Your task to perform on an android device: Go to Maps Image 0: 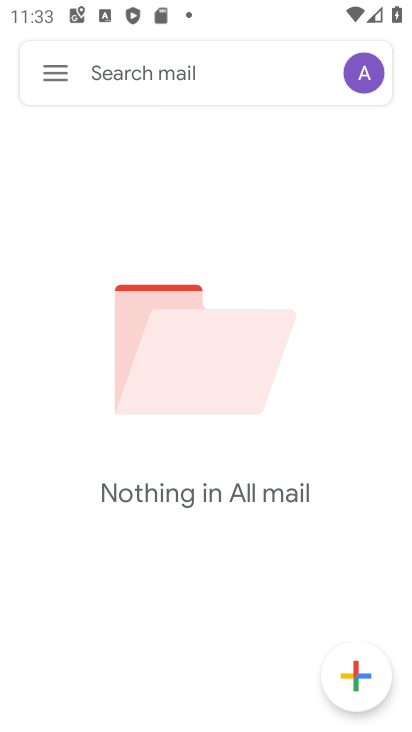
Step 0: press home button
Your task to perform on an android device: Go to Maps Image 1: 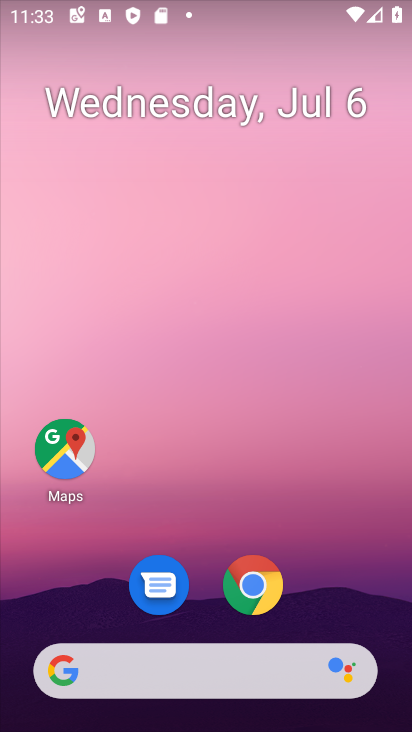
Step 1: click (50, 438)
Your task to perform on an android device: Go to Maps Image 2: 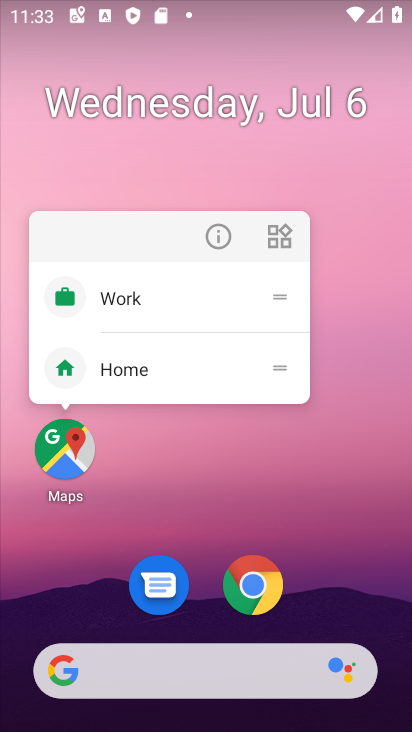
Step 2: click (52, 437)
Your task to perform on an android device: Go to Maps Image 3: 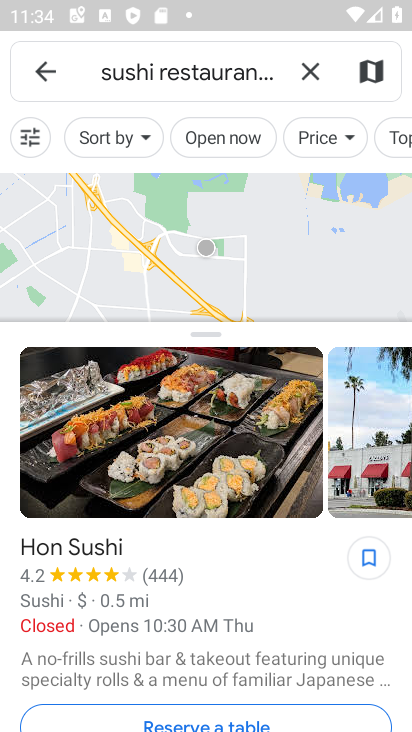
Step 3: click (308, 67)
Your task to perform on an android device: Go to Maps Image 4: 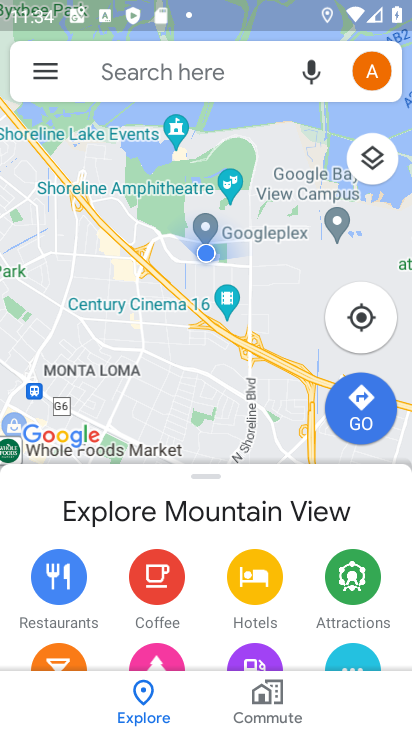
Step 4: task complete